Your task to perform on an android device: turn smart compose on in the gmail app Image 0: 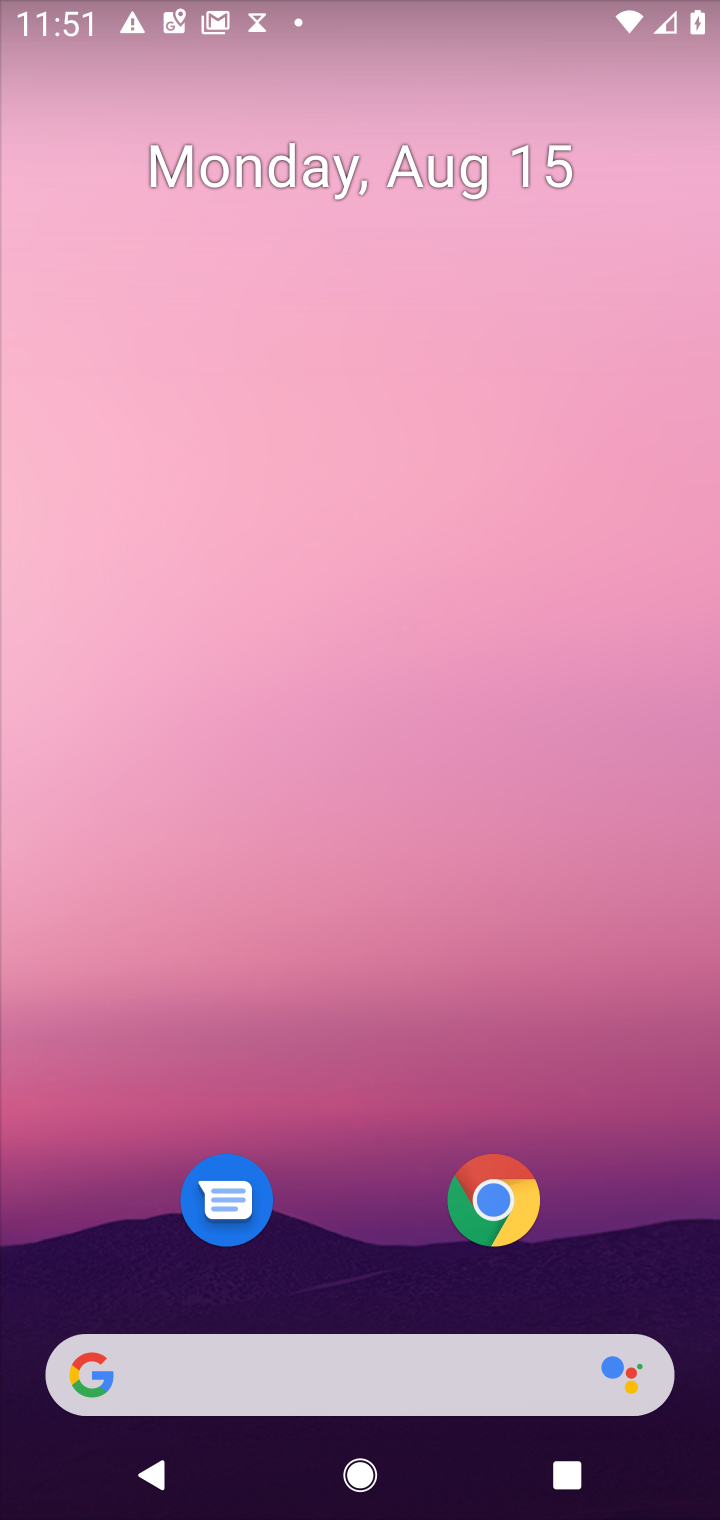
Step 0: drag from (334, 1097) to (290, 517)
Your task to perform on an android device: turn smart compose on in the gmail app Image 1: 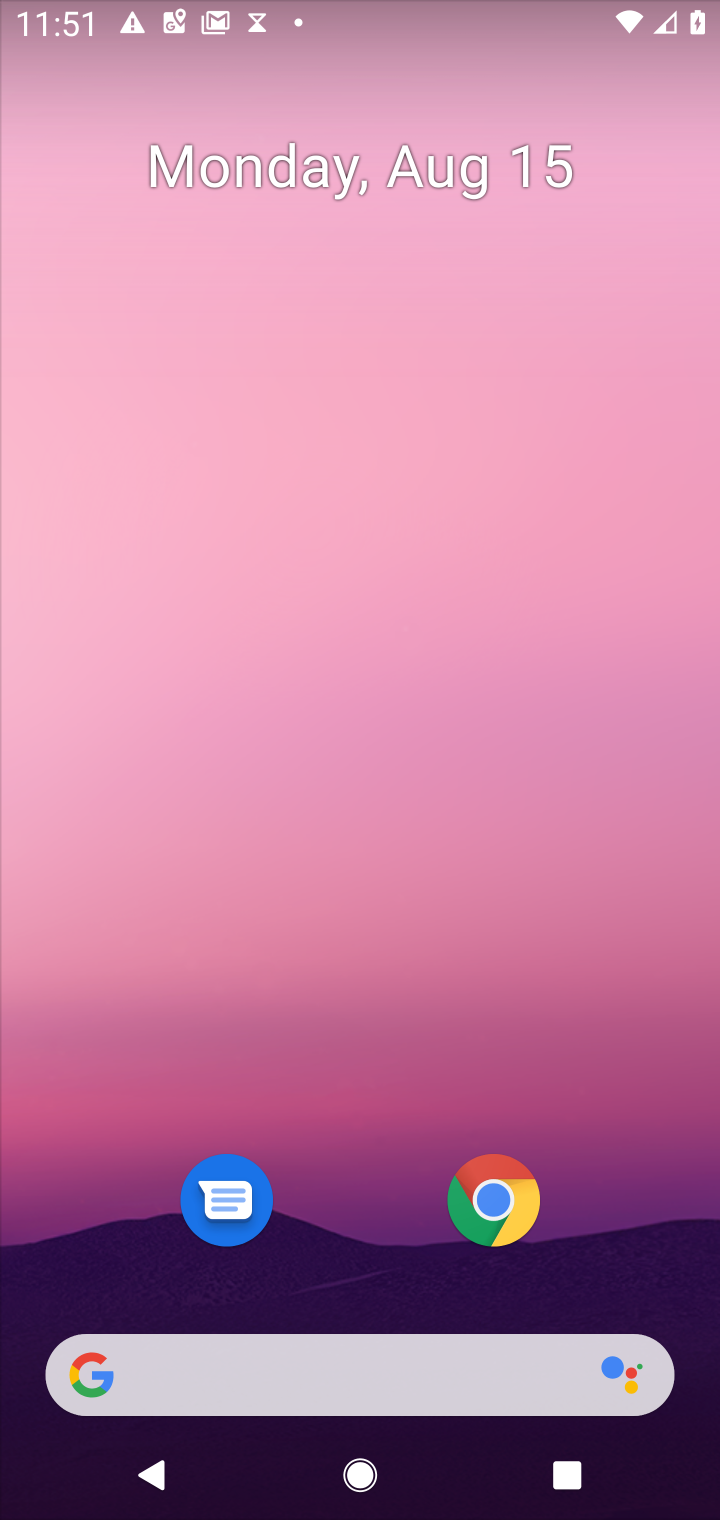
Step 1: drag from (372, 680) to (372, 454)
Your task to perform on an android device: turn smart compose on in the gmail app Image 2: 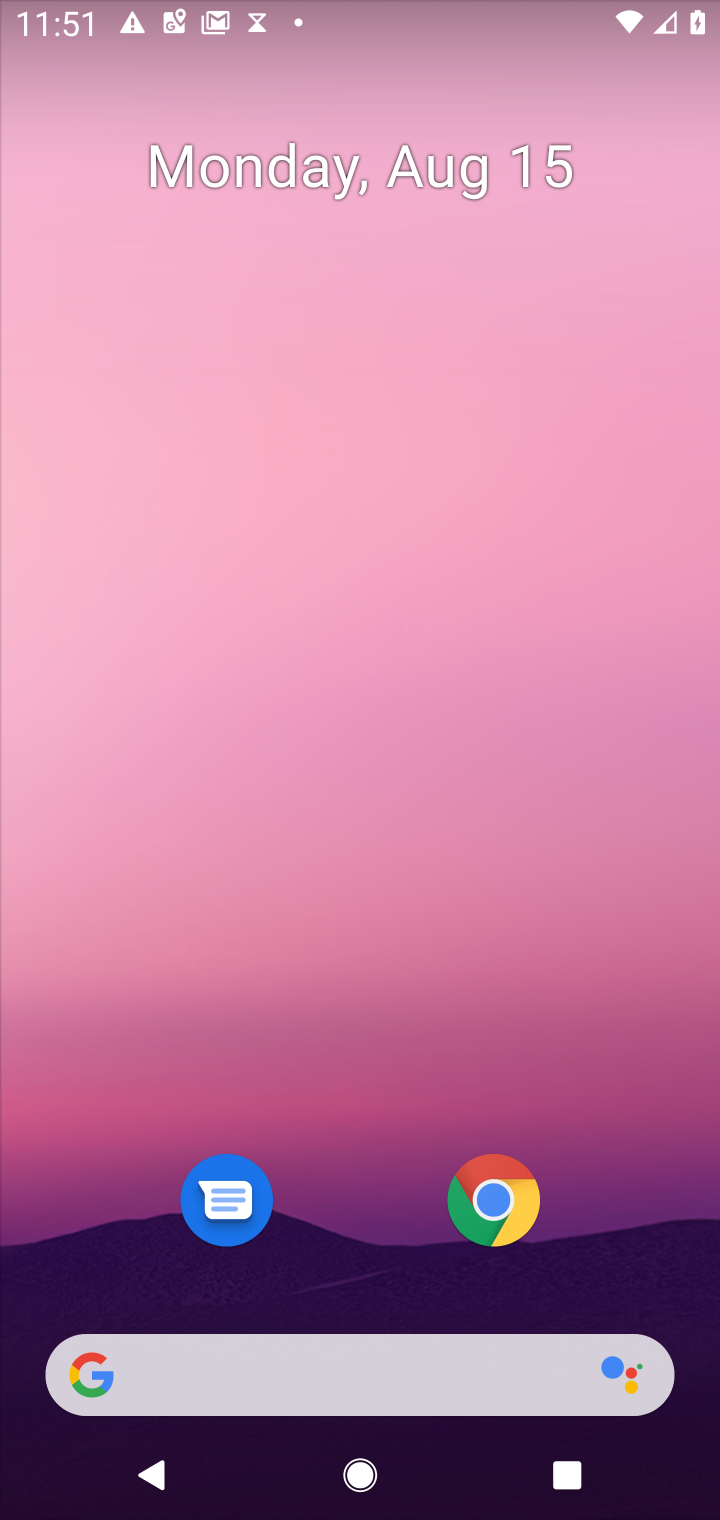
Step 2: drag from (330, 1040) to (325, 563)
Your task to perform on an android device: turn smart compose on in the gmail app Image 3: 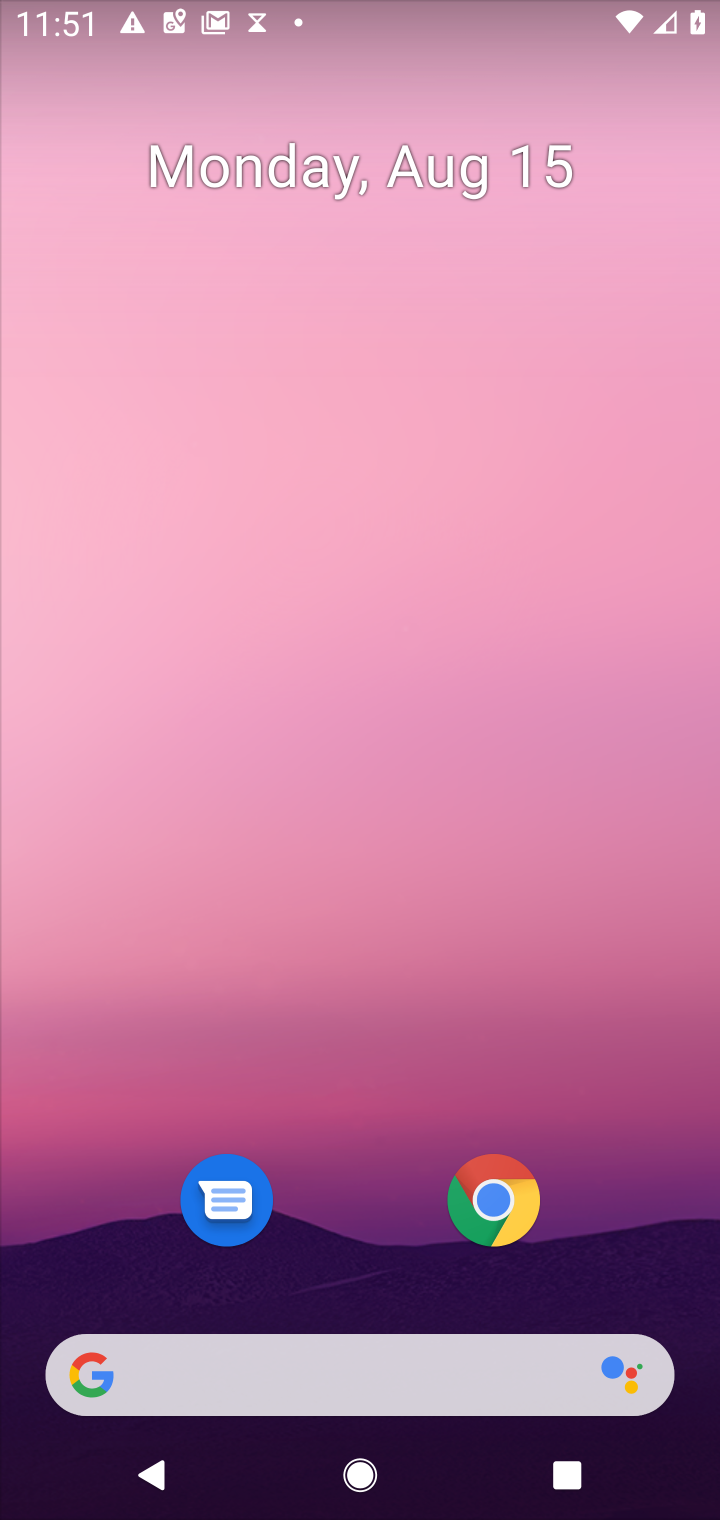
Step 3: drag from (369, 1206) to (419, 366)
Your task to perform on an android device: turn smart compose on in the gmail app Image 4: 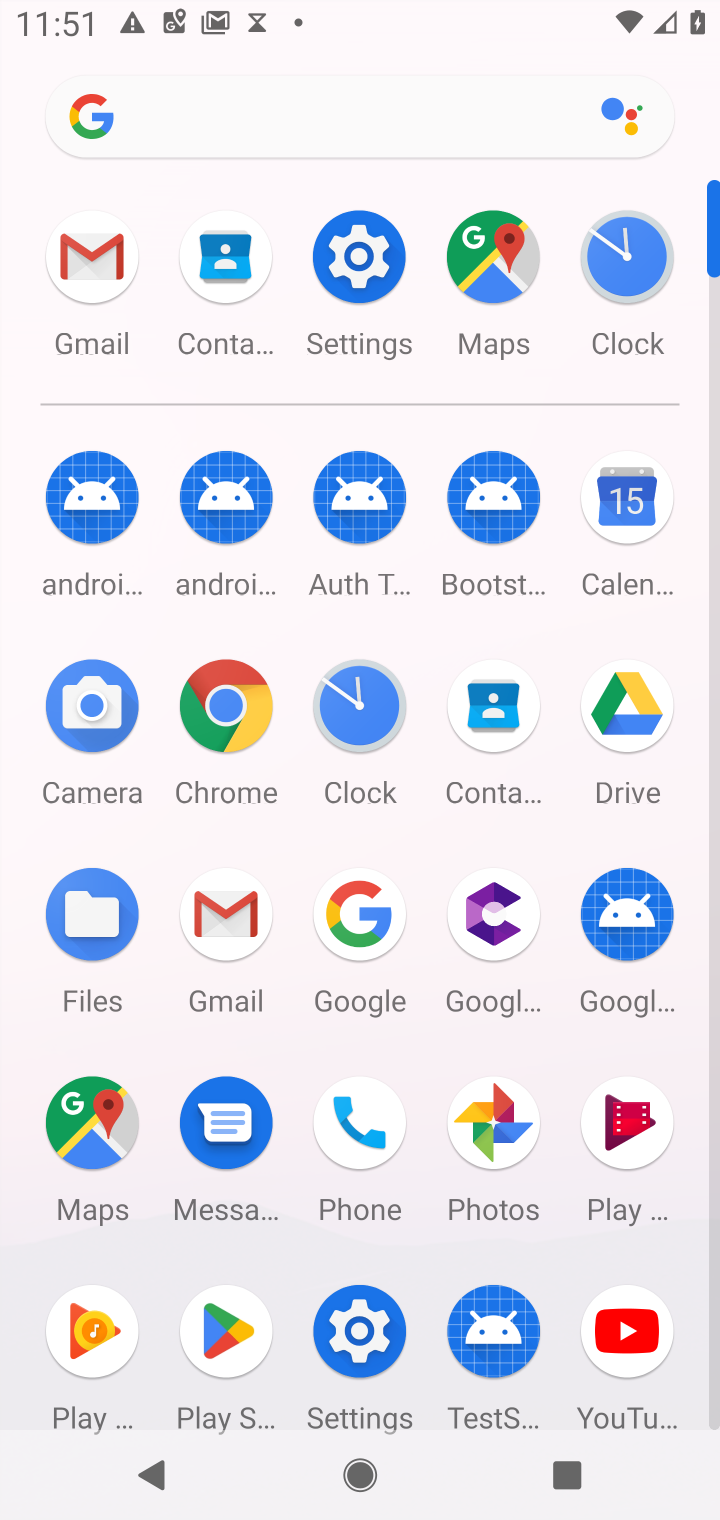
Step 4: click (104, 267)
Your task to perform on an android device: turn smart compose on in the gmail app Image 5: 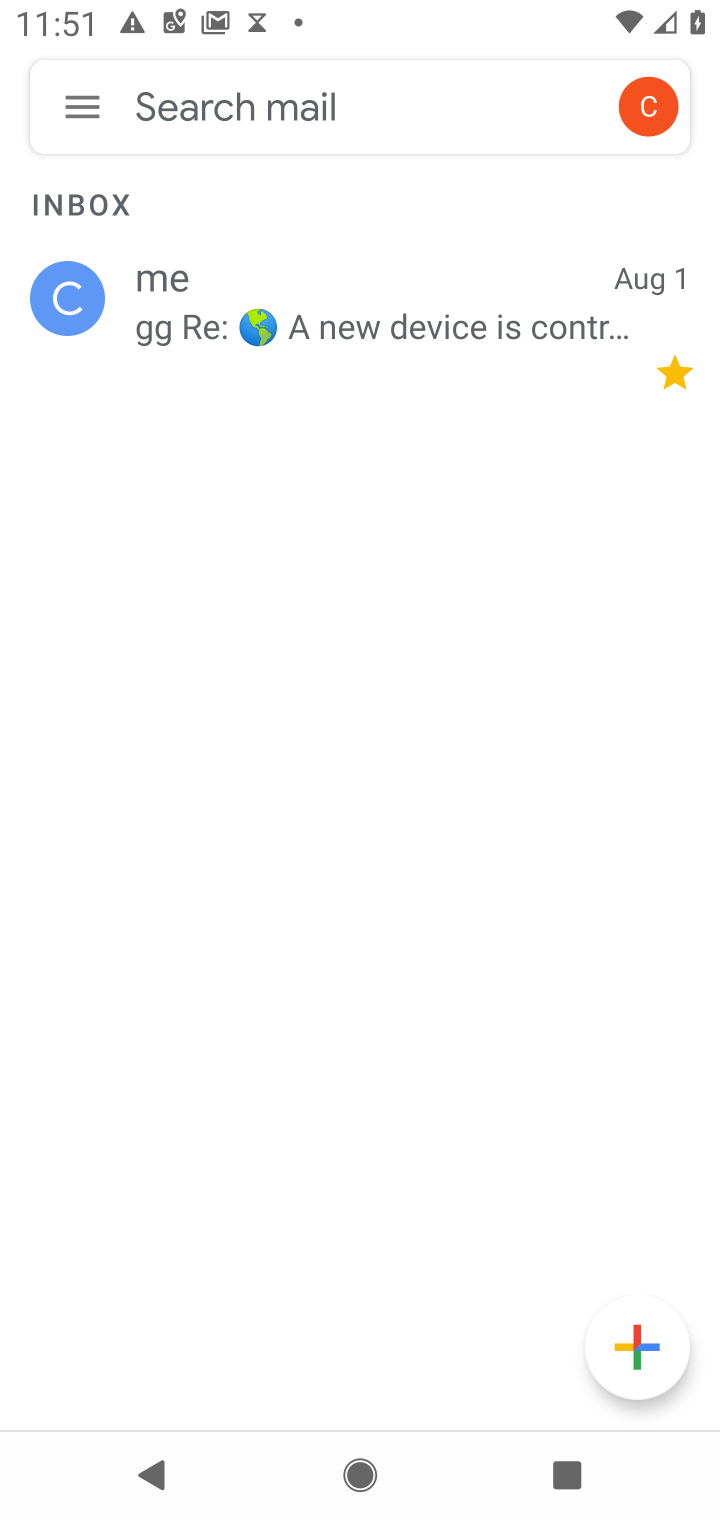
Step 5: click (63, 115)
Your task to perform on an android device: turn smart compose on in the gmail app Image 6: 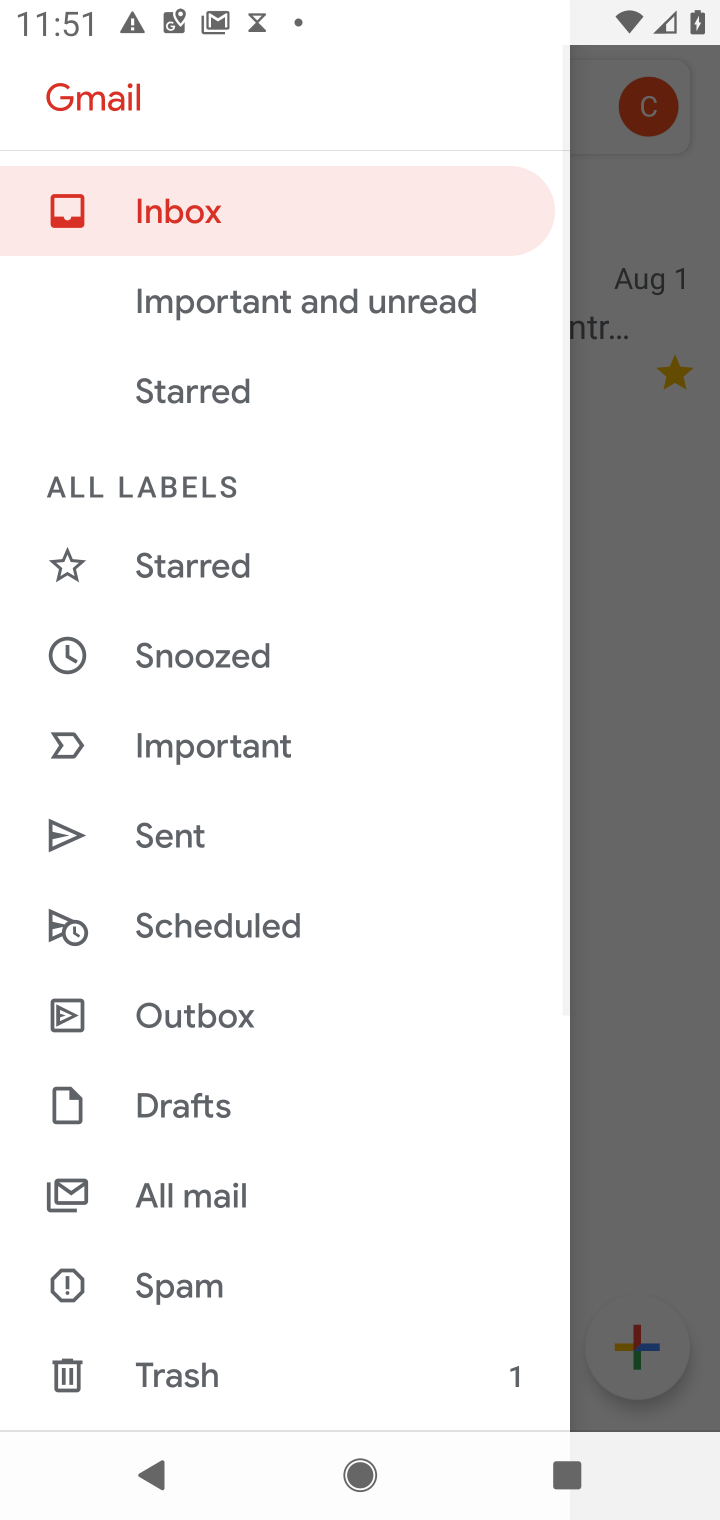
Step 6: drag from (256, 1279) to (233, 610)
Your task to perform on an android device: turn smart compose on in the gmail app Image 7: 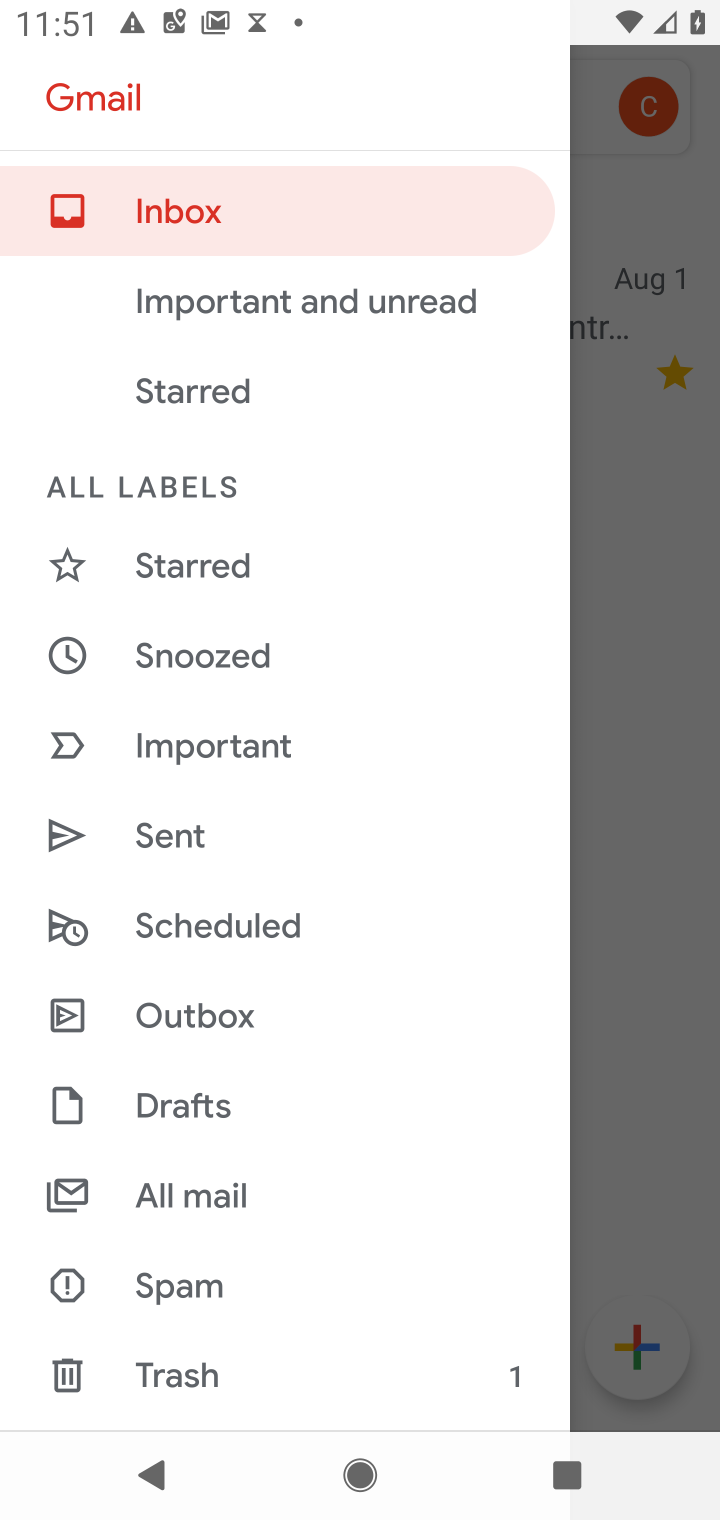
Step 7: drag from (267, 1245) to (282, 620)
Your task to perform on an android device: turn smart compose on in the gmail app Image 8: 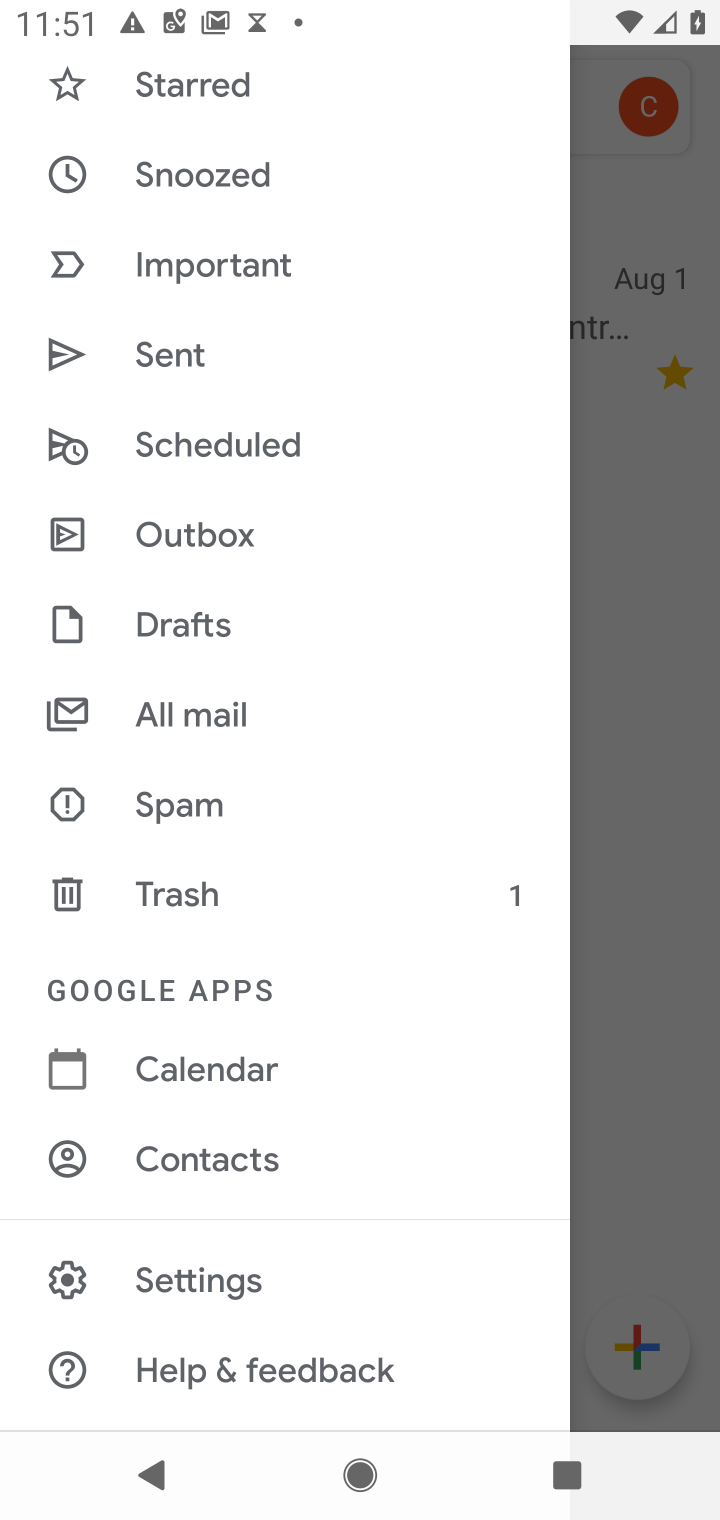
Step 8: click (194, 1249)
Your task to perform on an android device: turn smart compose on in the gmail app Image 9: 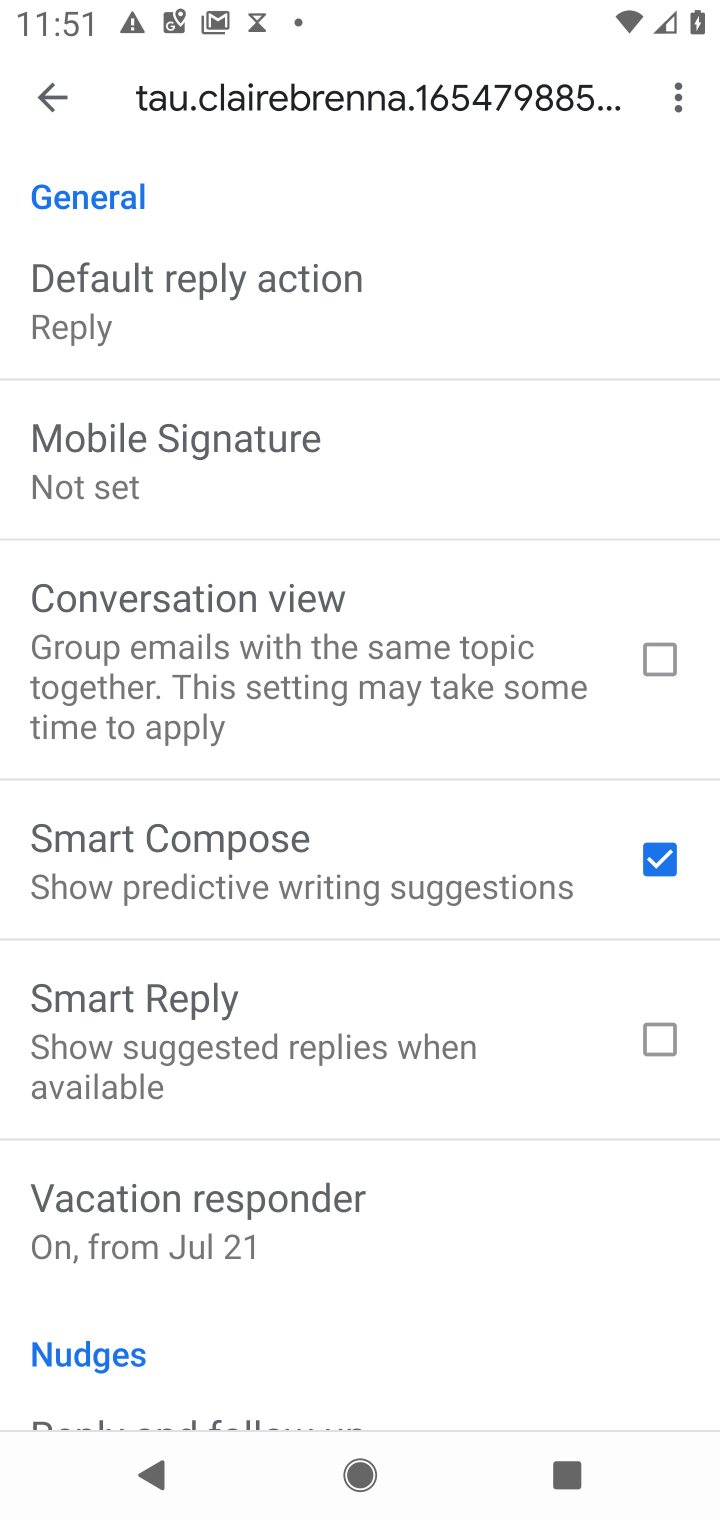
Step 9: task complete